Your task to perform on an android device: open app "Mercado Libre" (install if not already installed) Image 0: 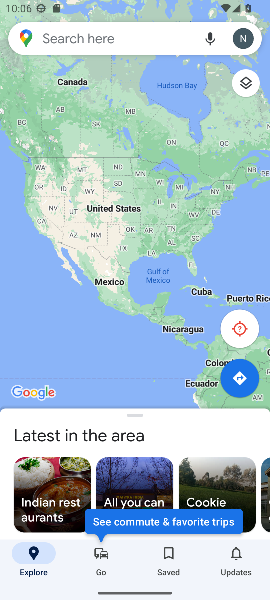
Step 0: press home button
Your task to perform on an android device: open app "Mercado Libre" (install if not already installed) Image 1: 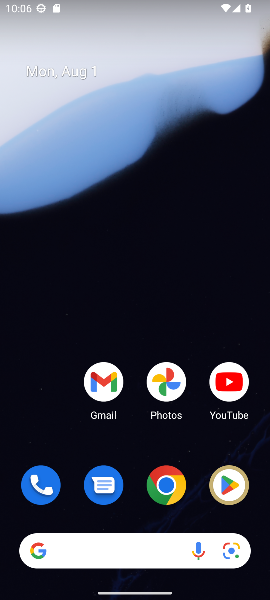
Step 1: click (115, 17)
Your task to perform on an android device: open app "Mercado Libre" (install if not already installed) Image 2: 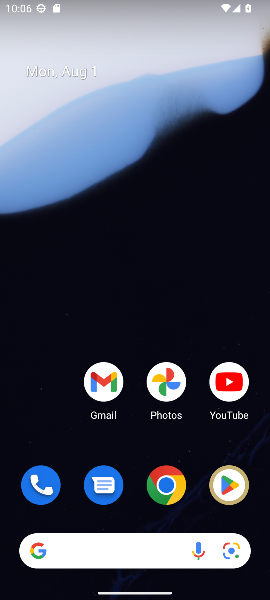
Step 2: drag from (150, 550) to (146, 77)
Your task to perform on an android device: open app "Mercado Libre" (install if not already installed) Image 3: 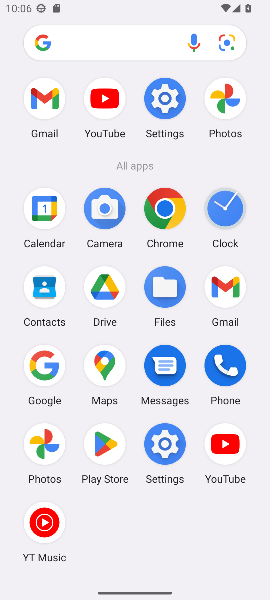
Step 3: click (112, 453)
Your task to perform on an android device: open app "Mercado Libre" (install if not already installed) Image 4: 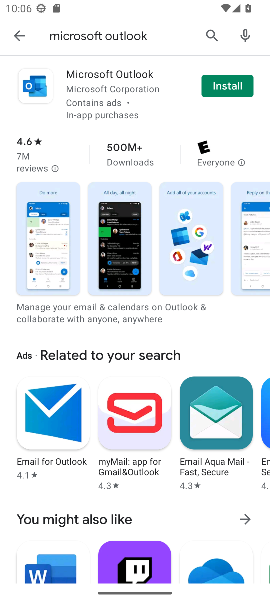
Step 4: click (211, 36)
Your task to perform on an android device: open app "Mercado Libre" (install if not already installed) Image 5: 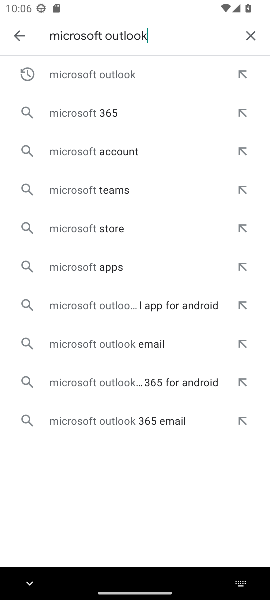
Step 5: click (247, 35)
Your task to perform on an android device: open app "Mercado Libre" (install if not already installed) Image 6: 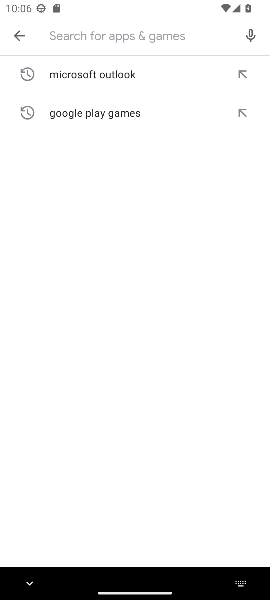
Step 6: type "mercado lite"
Your task to perform on an android device: open app "Mercado Libre" (install if not already installed) Image 7: 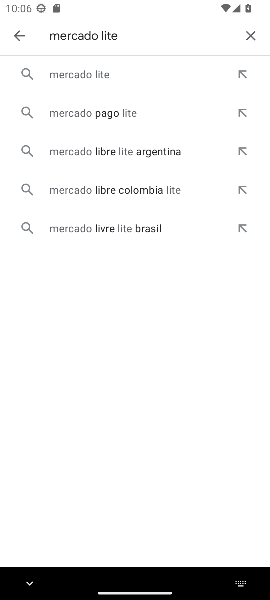
Step 7: click (97, 84)
Your task to perform on an android device: open app "Mercado Libre" (install if not already installed) Image 8: 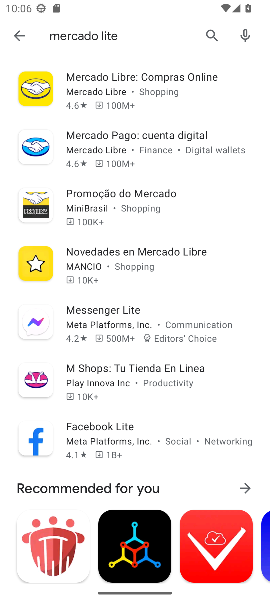
Step 8: click (97, 84)
Your task to perform on an android device: open app "Mercado Libre" (install if not already installed) Image 9: 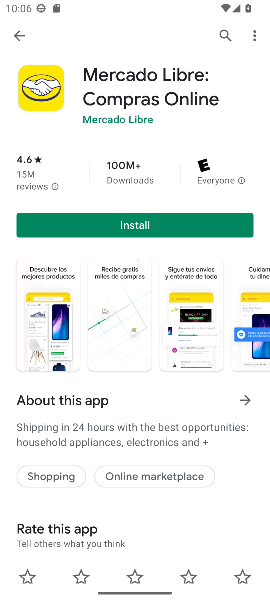
Step 9: task complete